Your task to perform on an android device: change keyboard looks Image 0: 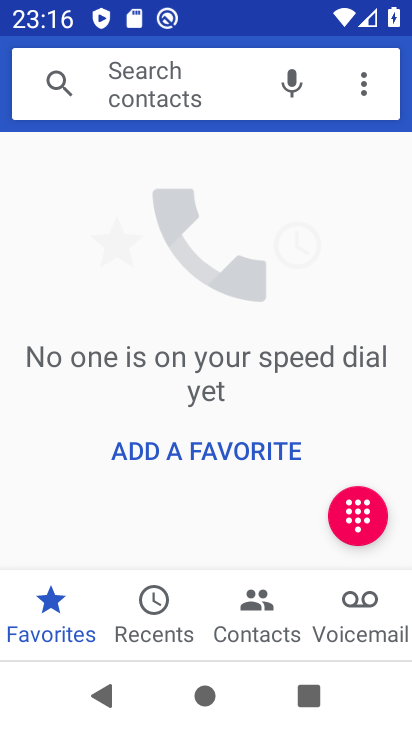
Step 0: press home button
Your task to perform on an android device: change keyboard looks Image 1: 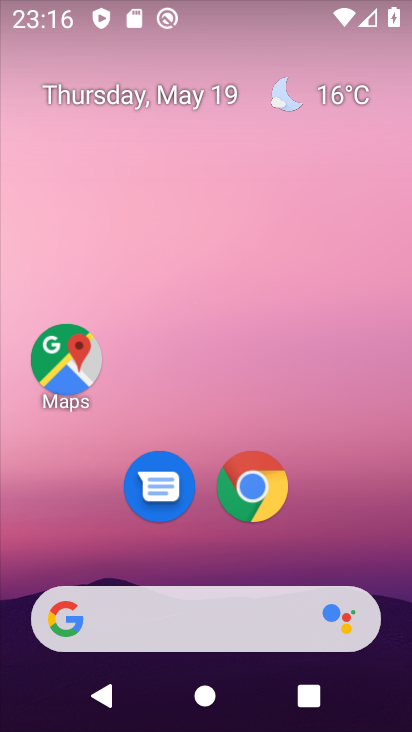
Step 1: drag from (372, 535) to (323, 97)
Your task to perform on an android device: change keyboard looks Image 2: 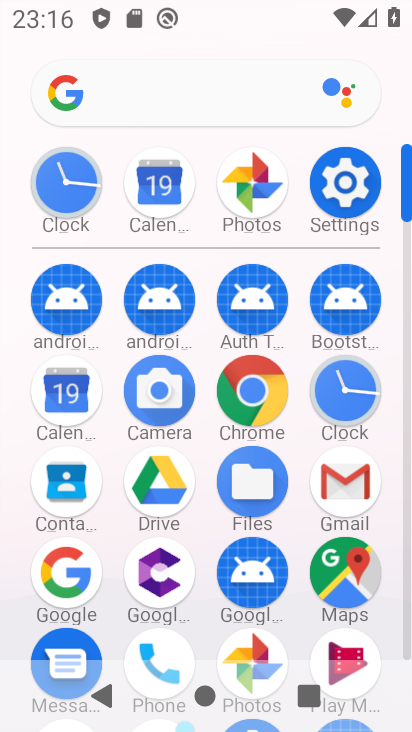
Step 2: click (347, 175)
Your task to perform on an android device: change keyboard looks Image 3: 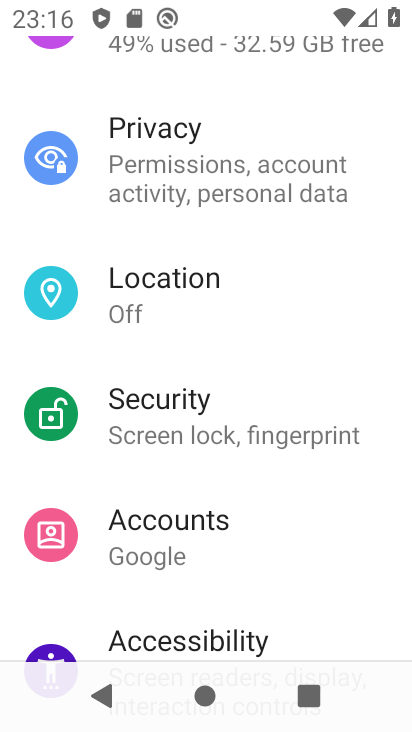
Step 3: drag from (207, 563) to (289, 125)
Your task to perform on an android device: change keyboard looks Image 4: 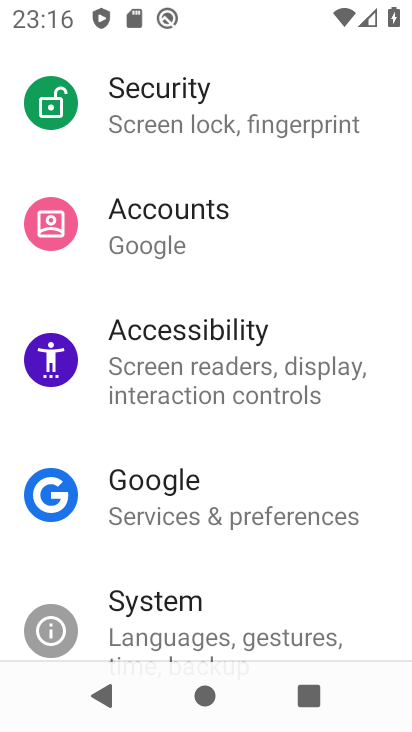
Step 4: drag from (238, 589) to (283, 300)
Your task to perform on an android device: change keyboard looks Image 5: 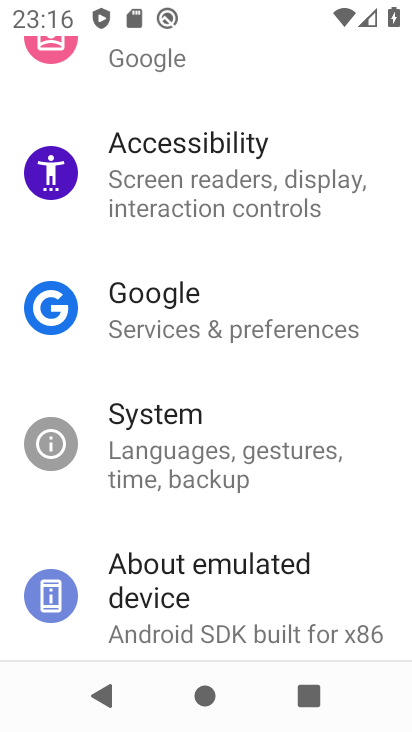
Step 5: click (253, 434)
Your task to perform on an android device: change keyboard looks Image 6: 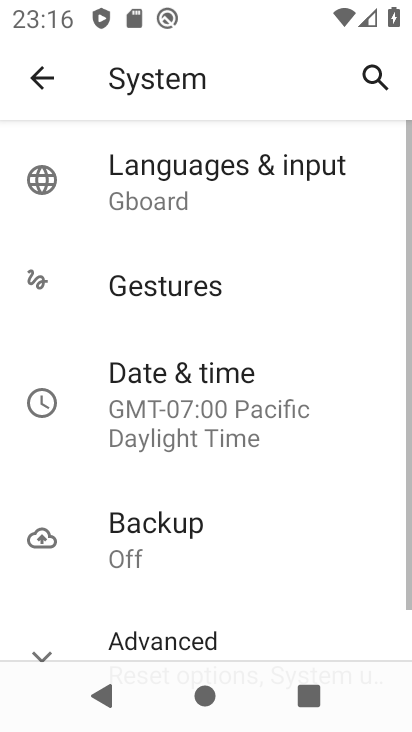
Step 6: click (258, 216)
Your task to perform on an android device: change keyboard looks Image 7: 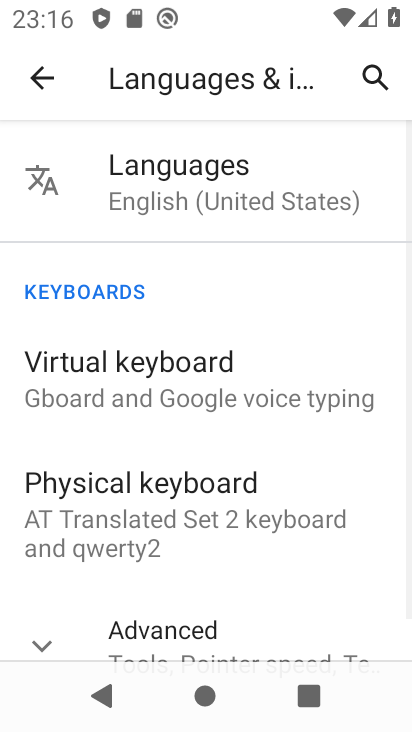
Step 7: click (201, 375)
Your task to perform on an android device: change keyboard looks Image 8: 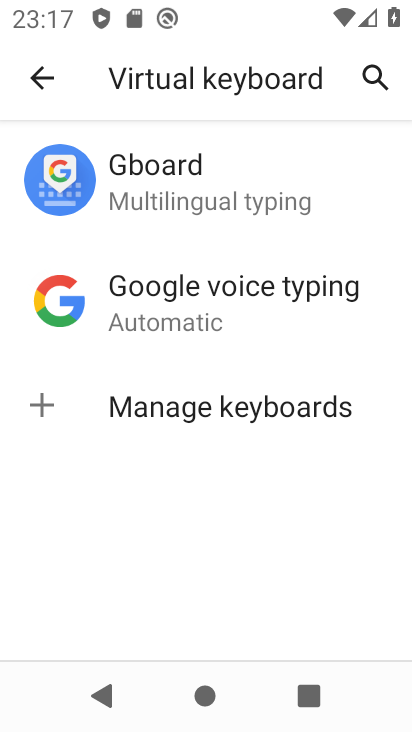
Step 8: click (248, 218)
Your task to perform on an android device: change keyboard looks Image 9: 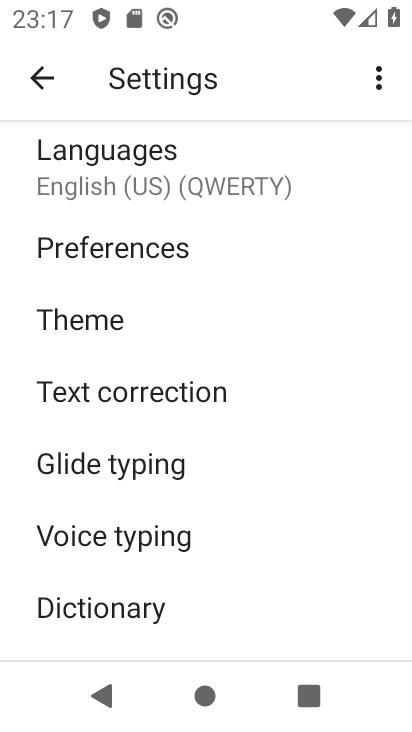
Step 9: click (137, 318)
Your task to perform on an android device: change keyboard looks Image 10: 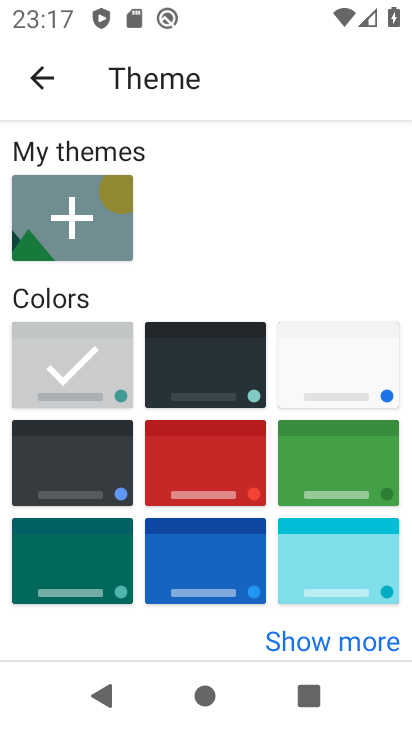
Step 10: click (165, 370)
Your task to perform on an android device: change keyboard looks Image 11: 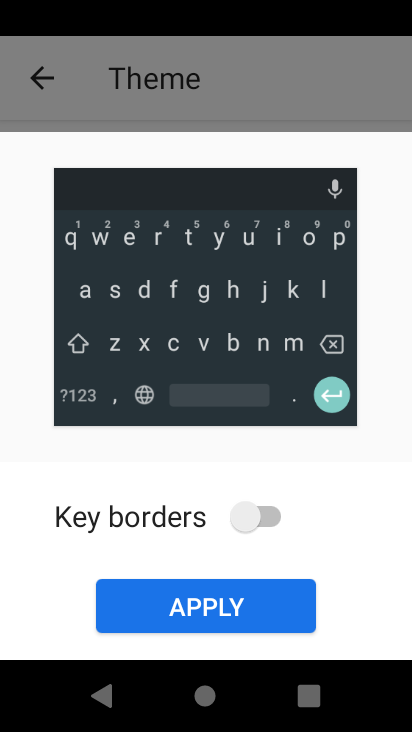
Step 11: click (261, 609)
Your task to perform on an android device: change keyboard looks Image 12: 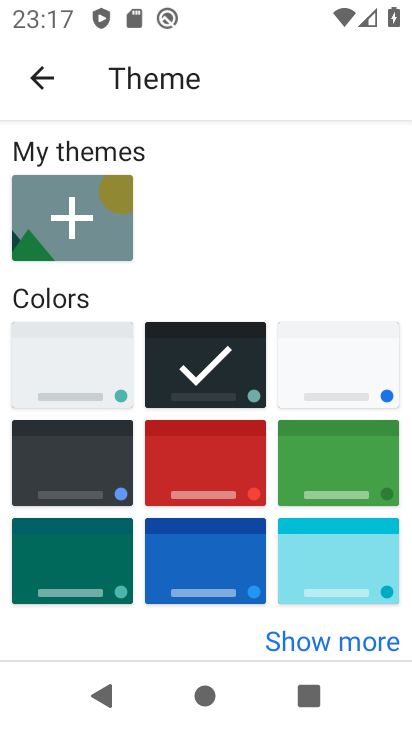
Step 12: task complete